Your task to perform on an android device: turn off data saver in the chrome app Image 0: 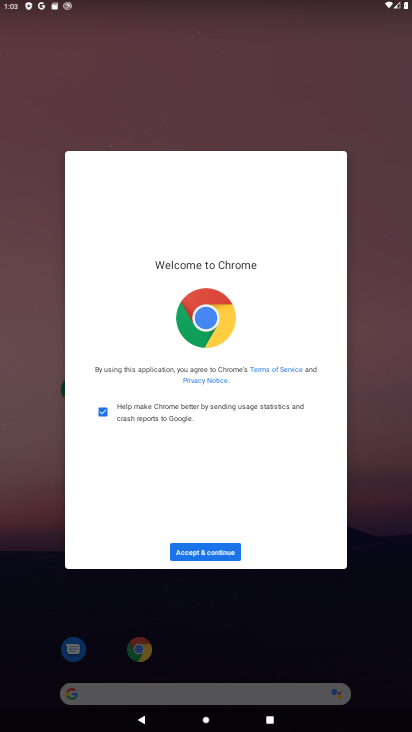
Step 0: click (187, 556)
Your task to perform on an android device: turn off data saver in the chrome app Image 1: 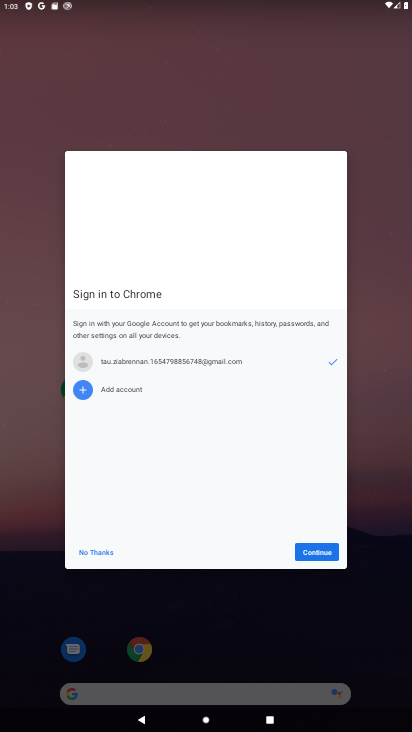
Step 1: click (325, 552)
Your task to perform on an android device: turn off data saver in the chrome app Image 2: 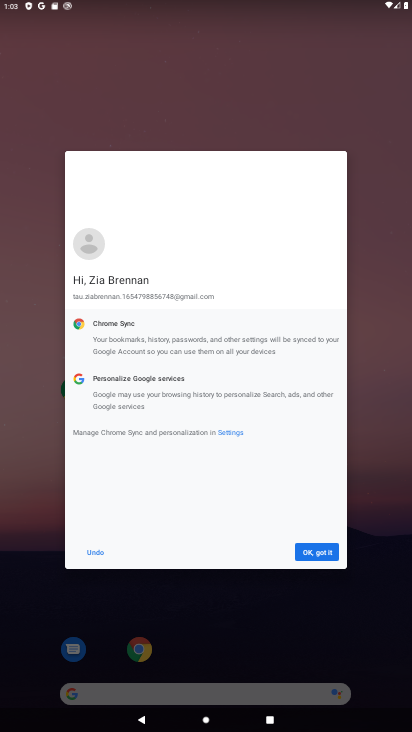
Step 2: click (322, 550)
Your task to perform on an android device: turn off data saver in the chrome app Image 3: 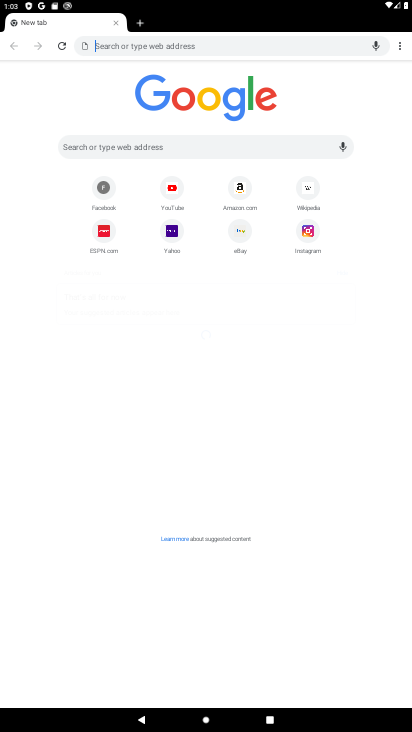
Step 3: drag from (395, 43) to (303, 210)
Your task to perform on an android device: turn off data saver in the chrome app Image 4: 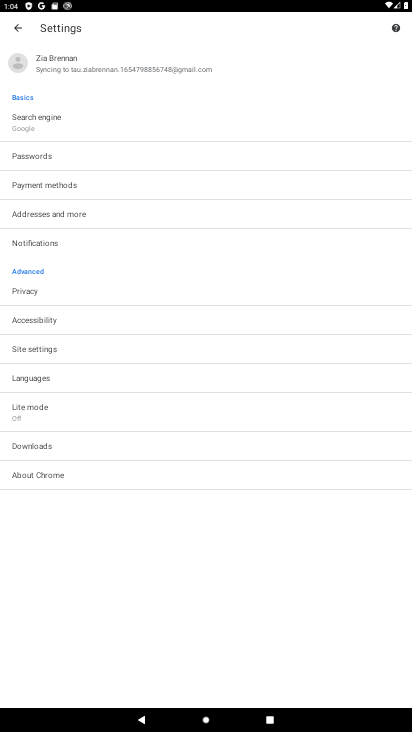
Step 4: click (43, 408)
Your task to perform on an android device: turn off data saver in the chrome app Image 5: 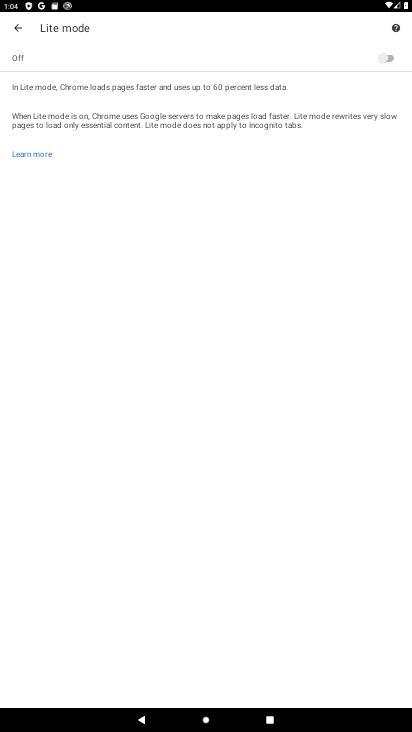
Step 5: task complete